Your task to perform on an android device: set default search engine in the chrome app Image 0: 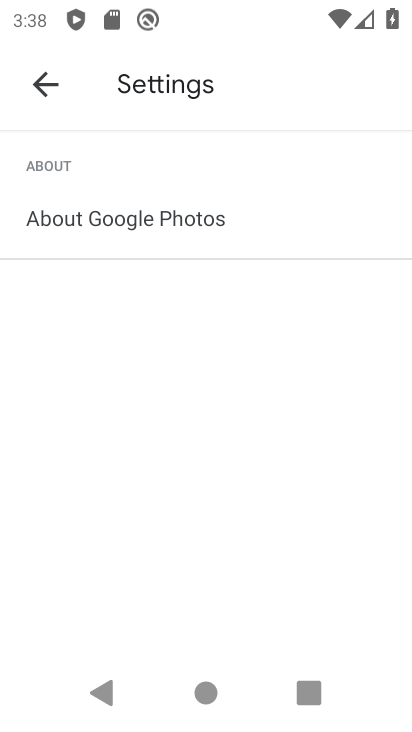
Step 0: press home button
Your task to perform on an android device: set default search engine in the chrome app Image 1: 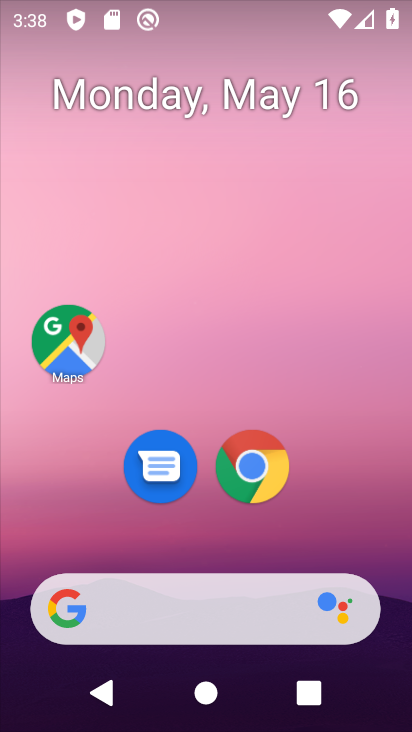
Step 1: drag from (278, 648) to (320, 119)
Your task to perform on an android device: set default search engine in the chrome app Image 2: 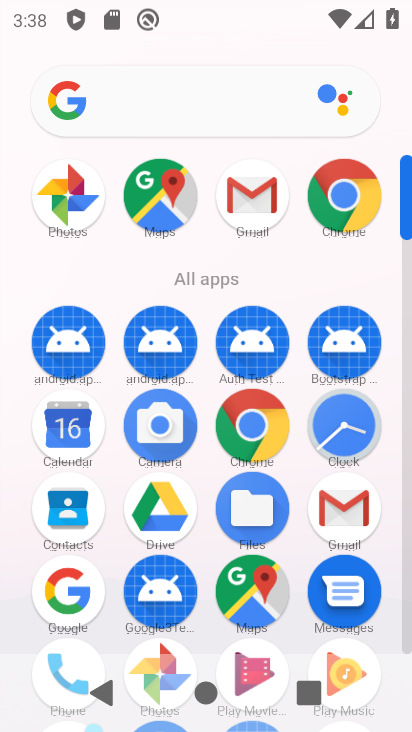
Step 2: click (330, 193)
Your task to perform on an android device: set default search engine in the chrome app Image 3: 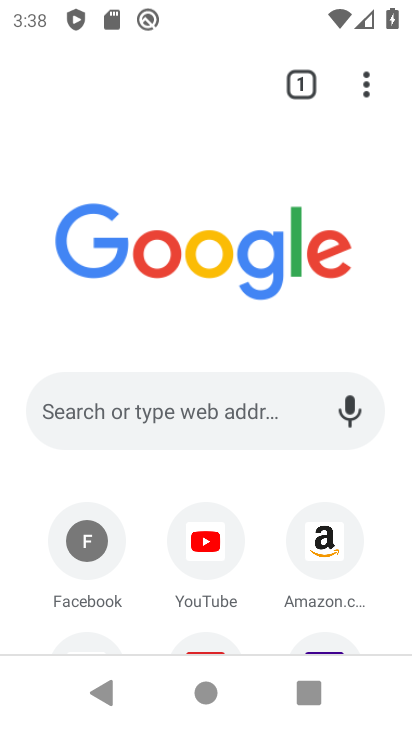
Step 3: click (358, 92)
Your task to perform on an android device: set default search engine in the chrome app Image 4: 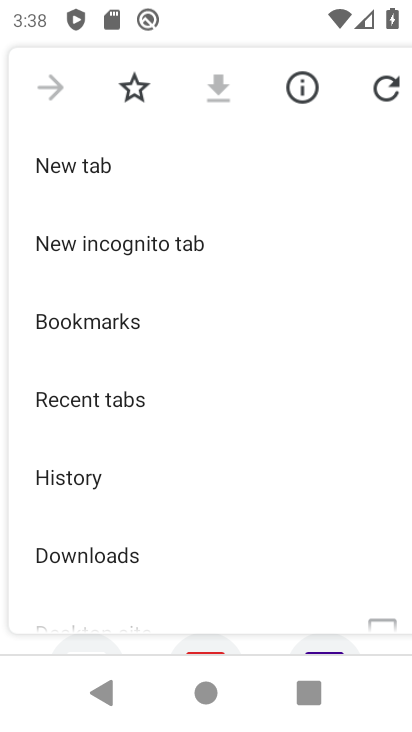
Step 4: drag from (86, 549) to (191, 182)
Your task to perform on an android device: set default search engine in the chrome app Image 5: 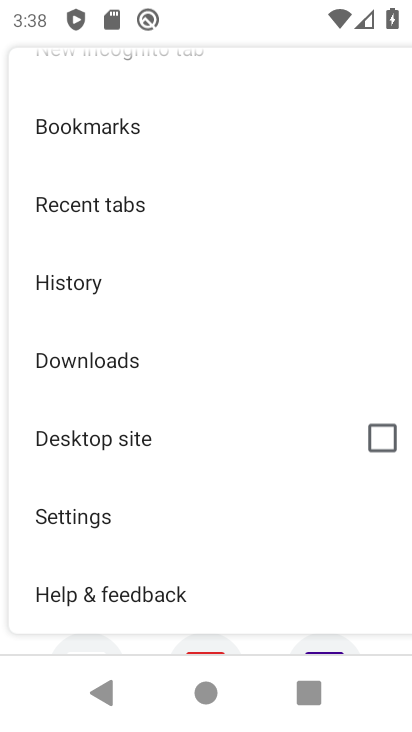
Step 5: click (83, 520)
Your task to perform on an android device: set default search engine in the chrome app Image 6: 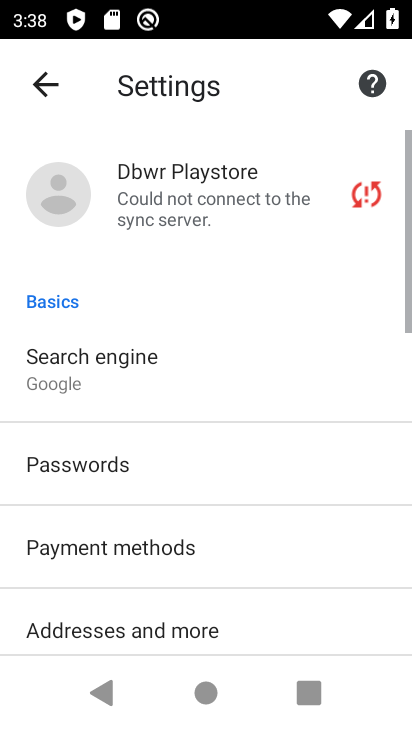
Step 6: click (92, 357)
Your task to perform on an android device: set default search engine in the chrome app Image 7: 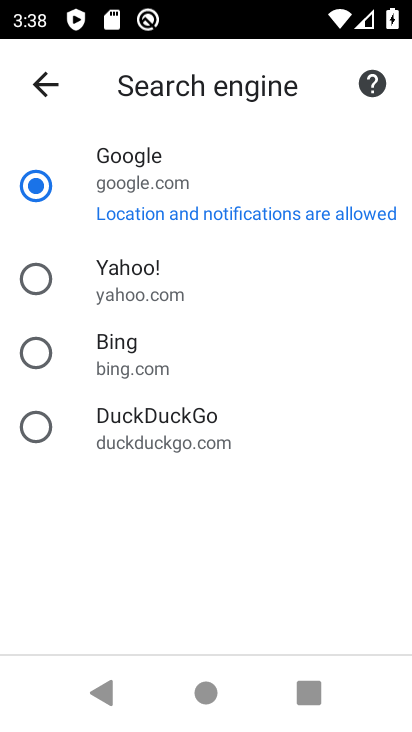
Step 7: task complete